Your task to perform on an android device: Open wifi settings Image 0: 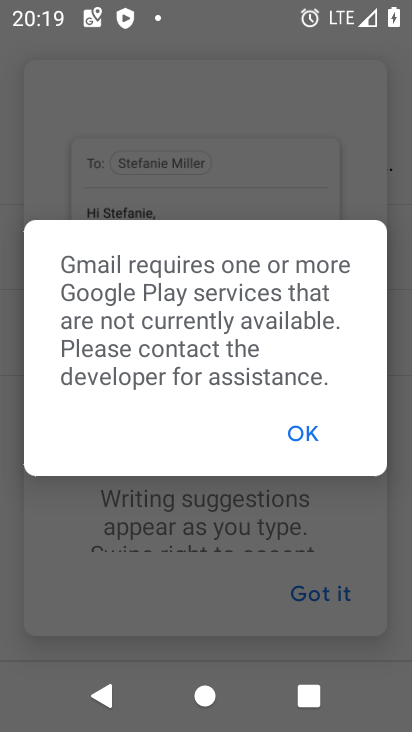
Step 0: press home button
Your task to perform on an android device: Open wifi settings Image 1: 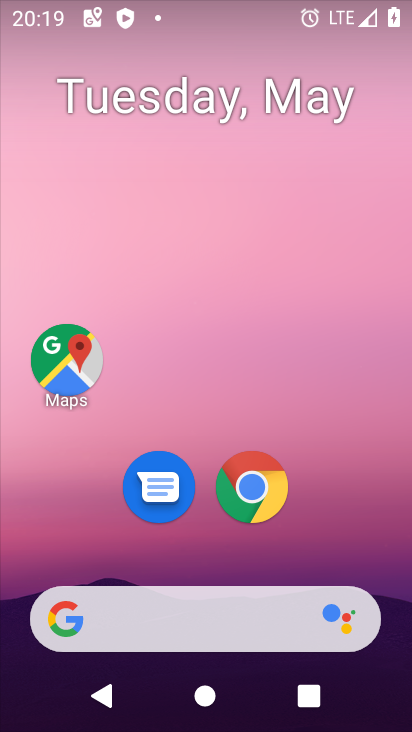
Step 1: drag from (339, 516) to (177, 1)
Your task to perform on an android device: Open wifi settings Image 2: 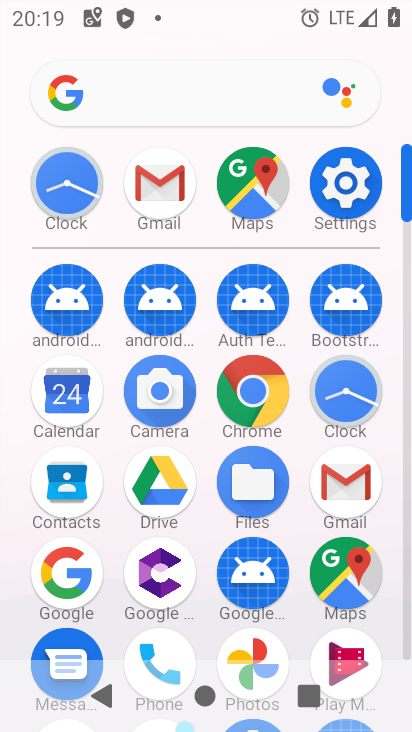
Step 2: click (344, 186)
Your task to perform on an android device: Open wifi settings Image 3: 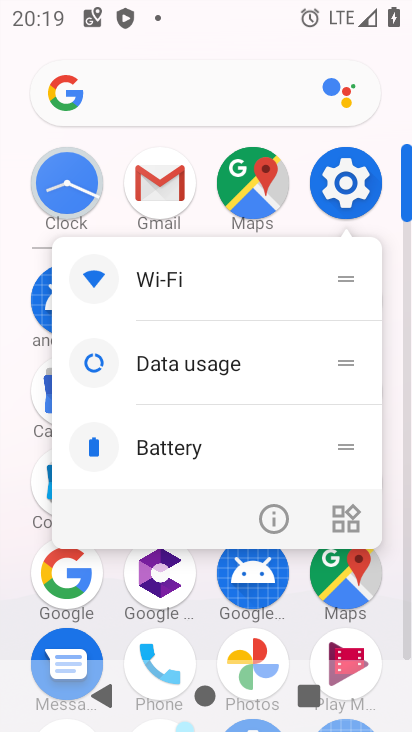
Step 3: click (344, 186)
Your task to perform on an android device: Open wifi settings Image 4: 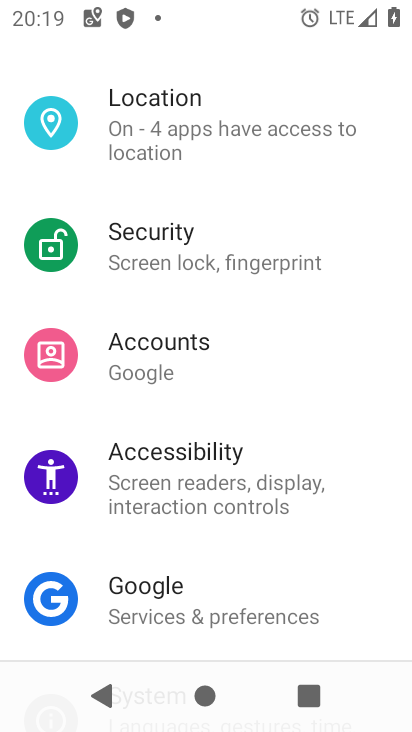
Step 4: drag from (277, 174) to (342, 712)
Your task to perform on an android device: Open wifi settings Image 5: 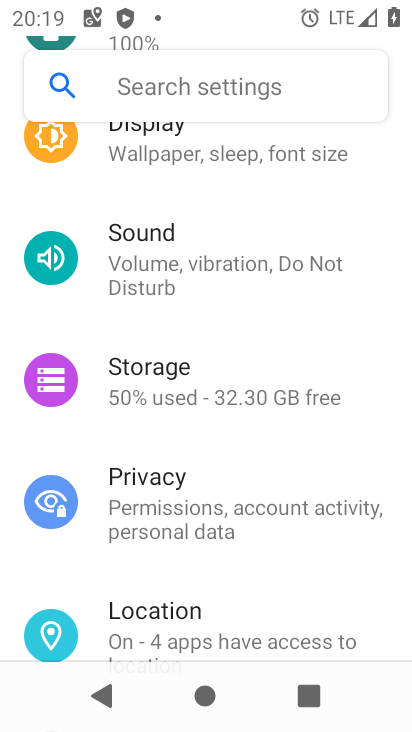
Step 5: drag from (186, 200) to (206, 712)
Your task to perform on an android device: Open wifi settings Image 6: 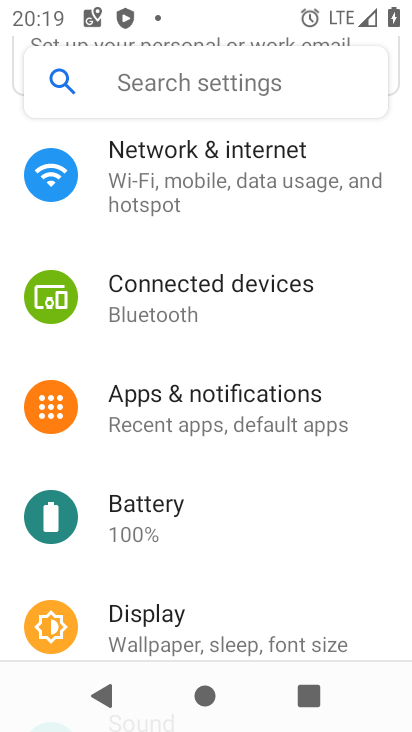
Step 6: drag from (184, 233) to (163, 693)
Your task to perform on an android device: Open wifi settings Image 7: 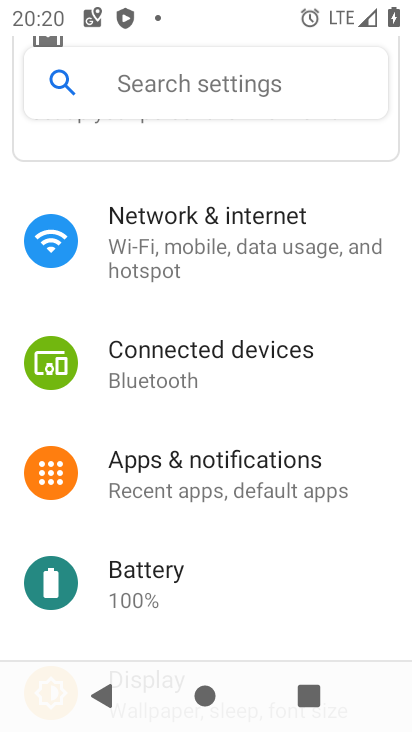
Step 7: click (197, 221)
Your task to perform on an android device: Open wifi settings Image 8: 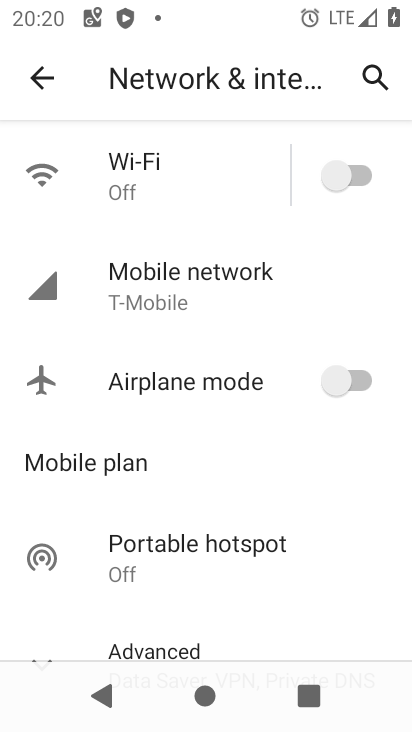
Step 8: task complete